Your task to perform on an android device: turn on improve location accuracy Image 0: 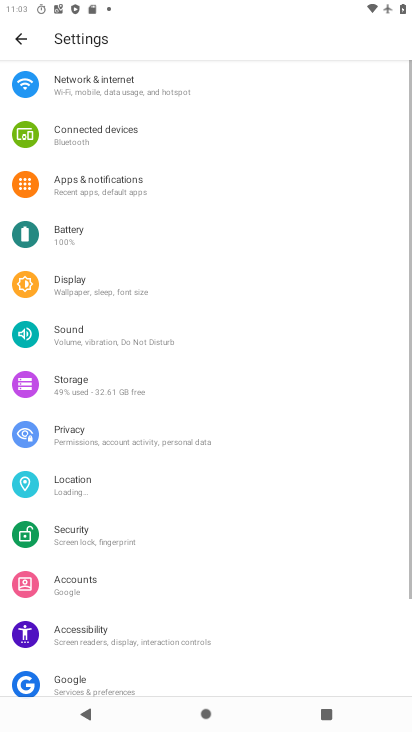
Step 0: press home button
Your task to perform on an android device: turn on improve location accuracy Image 1: 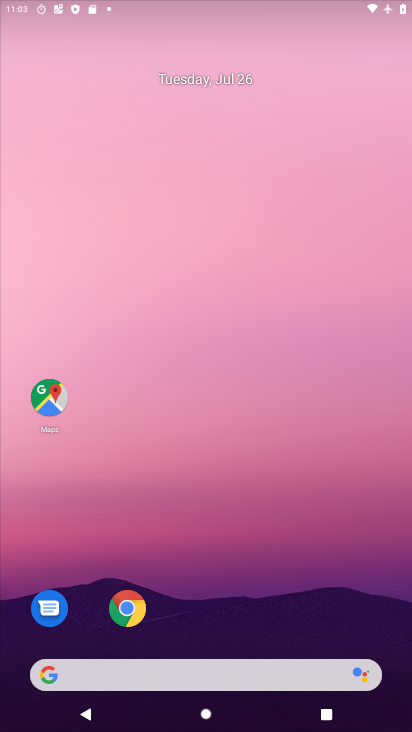
Step 1: drag from (206, 607) to (211, 99)
Your task to perform on an android device: turn on improve location accuracy Image 2: 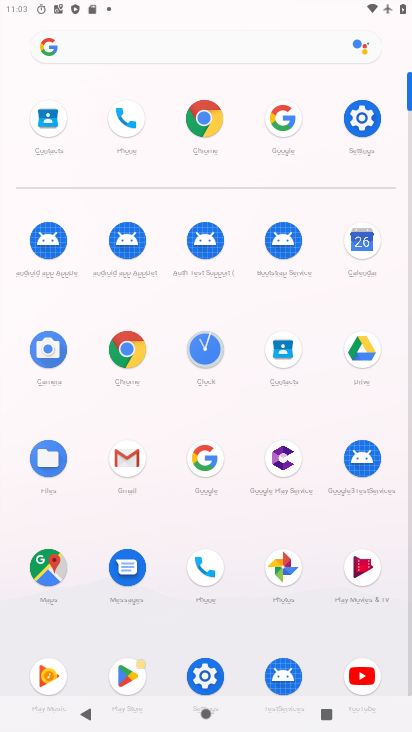
Step 2: click (345, 118)
Your task to perform on an android device: turn on improve location accuracy Image 3: 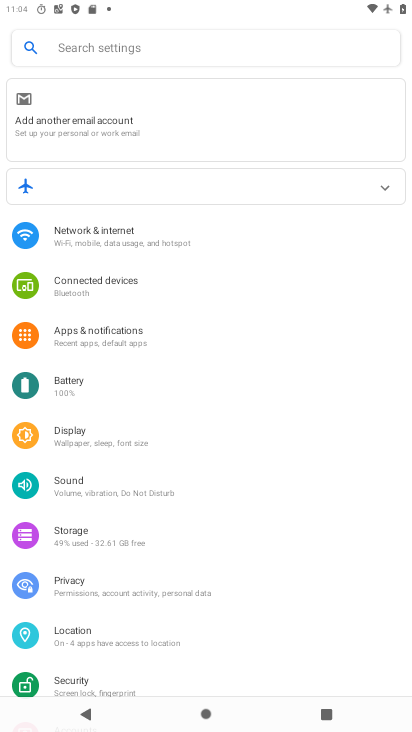
Step 3: click (116, 632)
Your task to perform on an android device: turn on improve location accuracy Image 4: 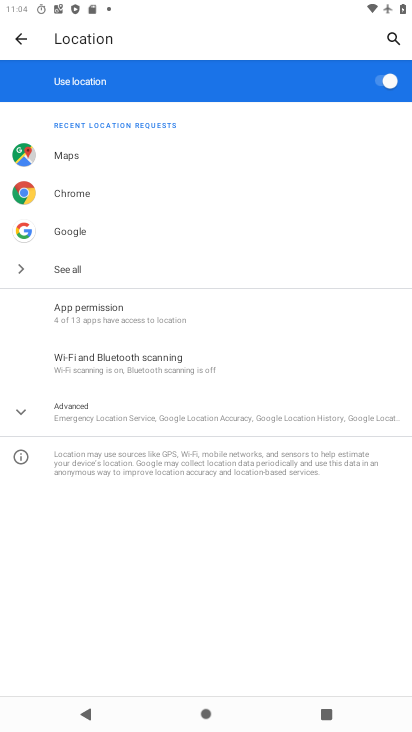
Step 4: click (111, 420)
Your task to perform on an android device: turn on improve location accuracy Image 5: 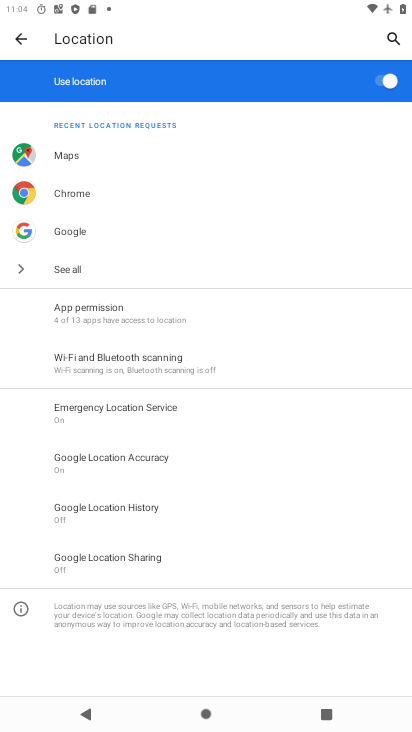
Step 5: click (152, 457)
Your task to perform on an android device: turn on improve location accuracy Image 6: 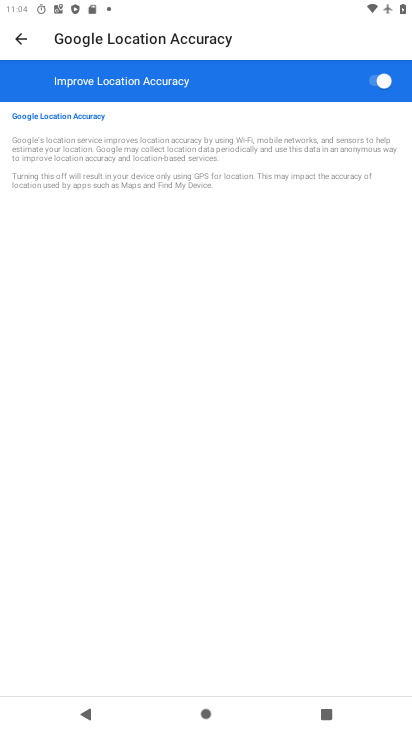
Step 6: task complete